Your task to perform on an android device: Open sound settings Image 0: 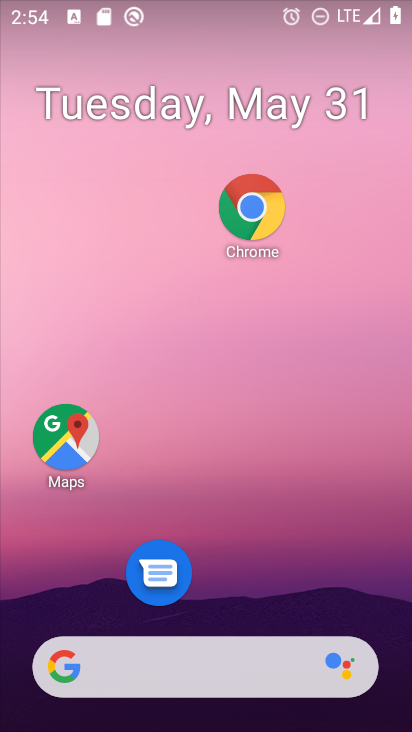
Step 0: drag from (241, 649) to (250, 169)
Your task to perform on an android device: Open sound settings Image 1: 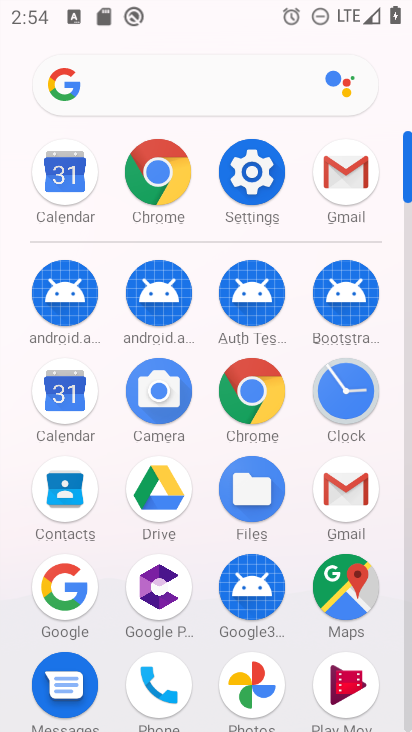
Step 1: click (269, 211)
Your task to perform on an android device: Open sound settings Image 2: 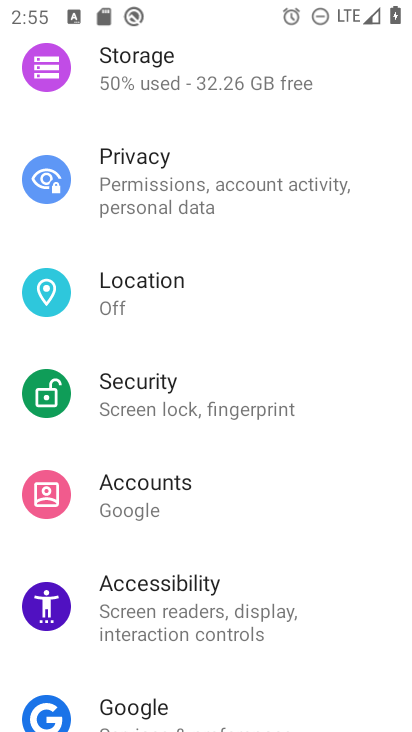
Step 2: drag from (212, 494) to (207, 654)
Your task to perform on an android device: Open sound settings Image 3: 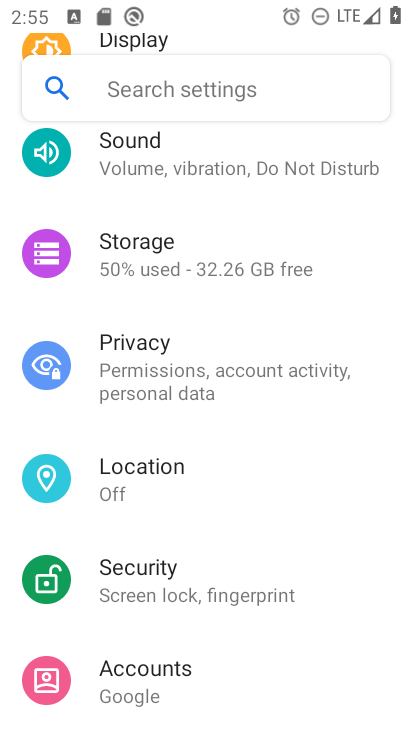
Step 3: drag from (226, 403) to (217, 580)
Your task to perform on an android device: Open sound settings Image 4: 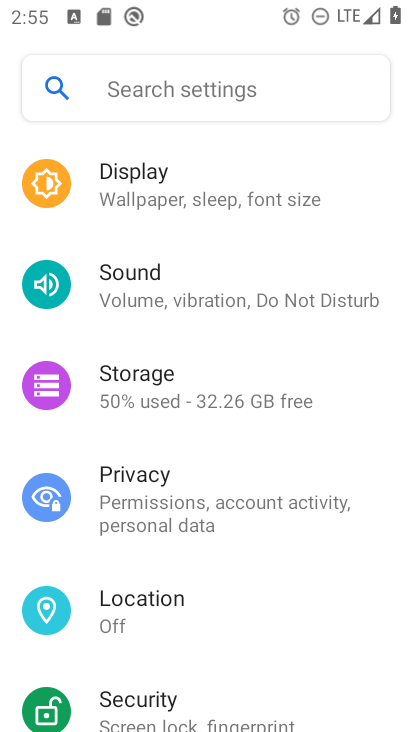
Step 4: click (210, 300)
Your task to perform on an android device: Open sound settings Image 5: 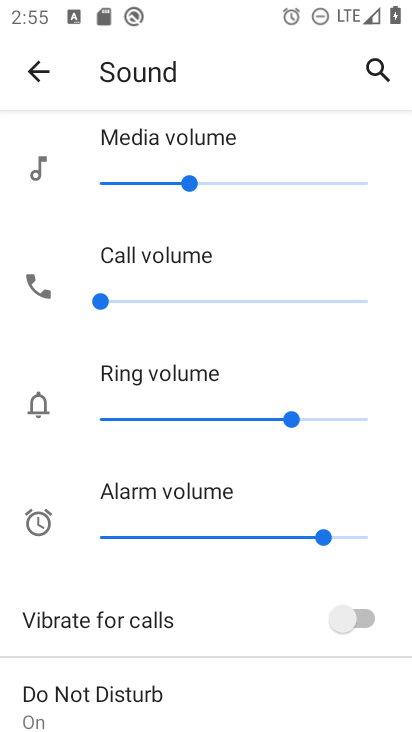
Step 5: task complete